Your task to perform on an android device: check battery use Image 0: 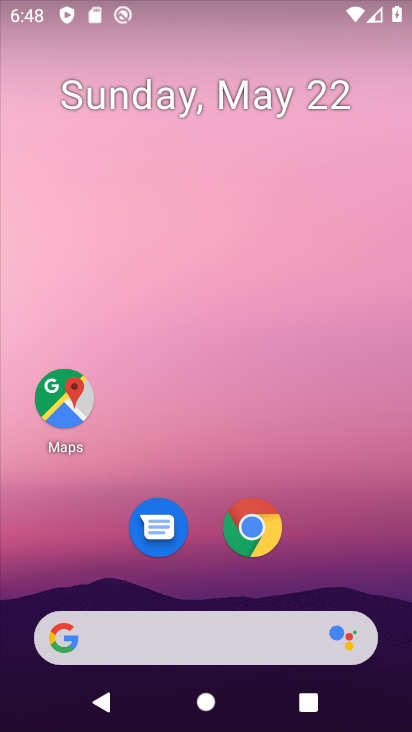
Step 0: drag from (364, 551) to (307, 3)
Your task to perform on an android device: check battery use Image 1: 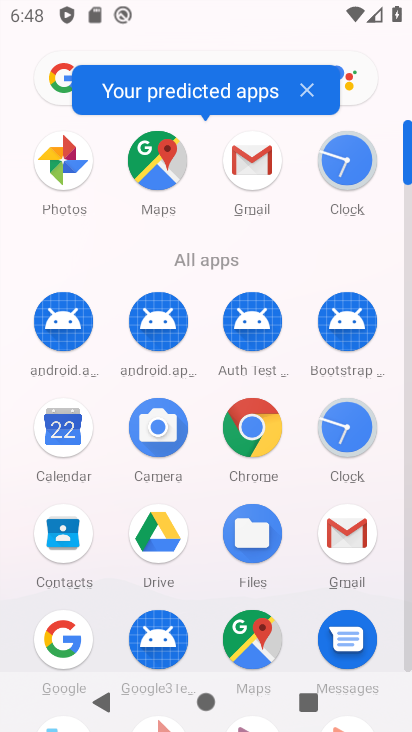
Step 1: drag from (380, 555) to (332, 163)
Your task to perform on an android device: check battery use Image 2: 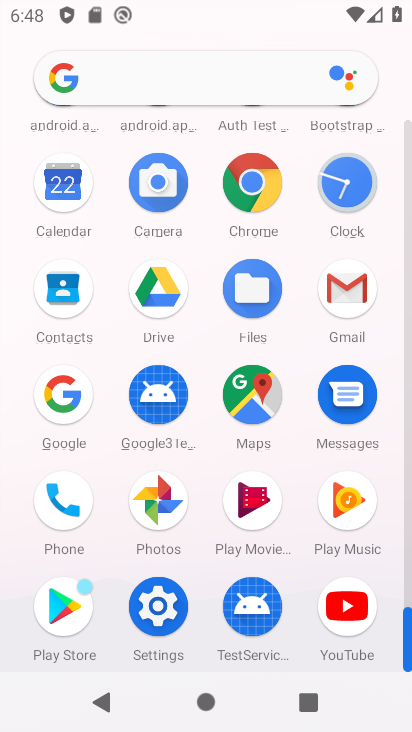
Step 2: click (182, 592)
Your task to perform on an android device: check battery use Image 3: 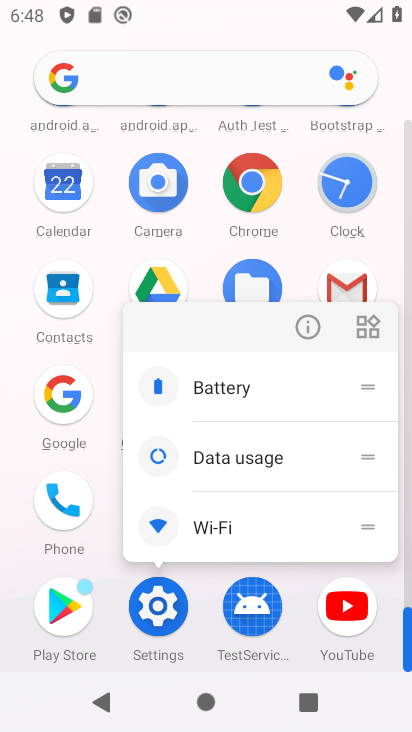
Step 3: click (163, 614)
Your task to perform on an android device: check battery use Image 4: 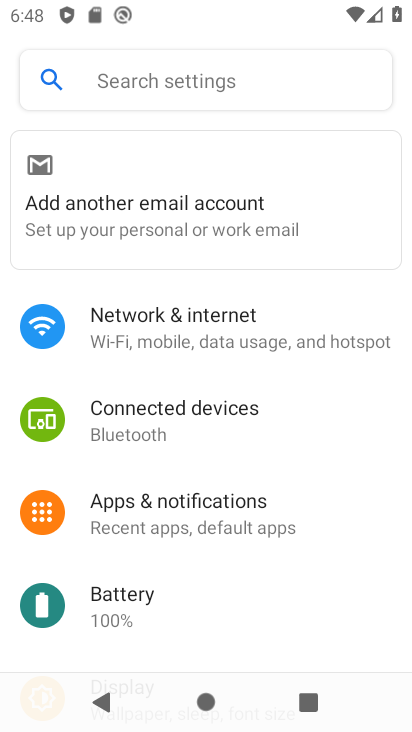
Step 4: drag from (177, 607) to (218, 242)
Your task to perform on an android device: check battery use Image 5: 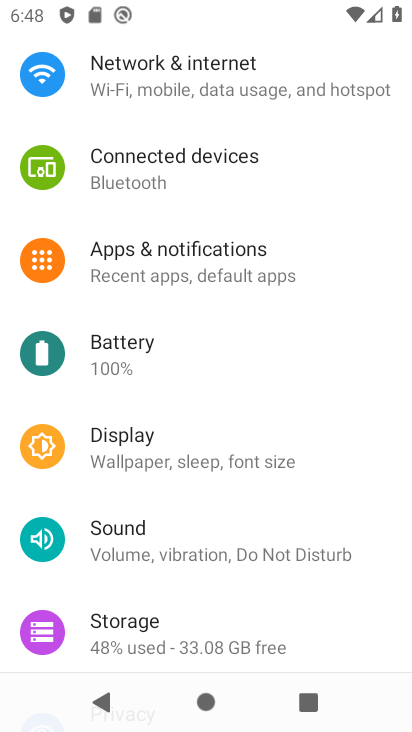
Step 5: click (124, 365)
Your task to perform on an android device: check battery use Image 6: 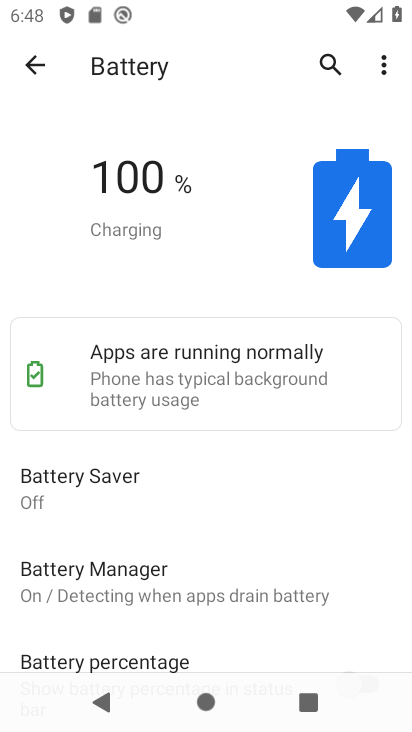
Step 6: task complete